Your task to perform on an android device: toggle wifi Image 0: 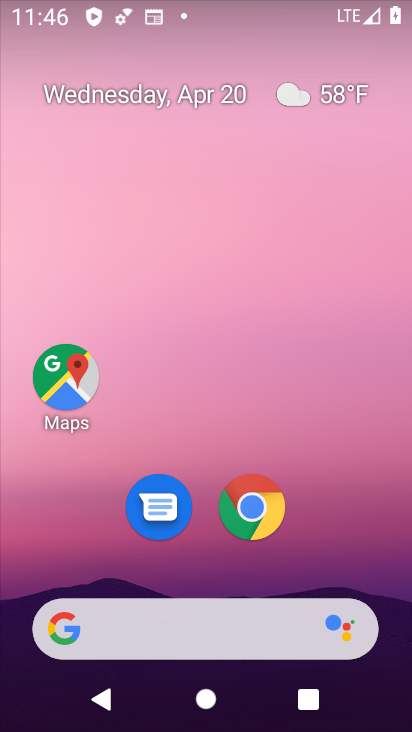
Step 0: drag from (351, 516) to (355, 172)
Your task to perform on an android device: toggle wifi Image 1: 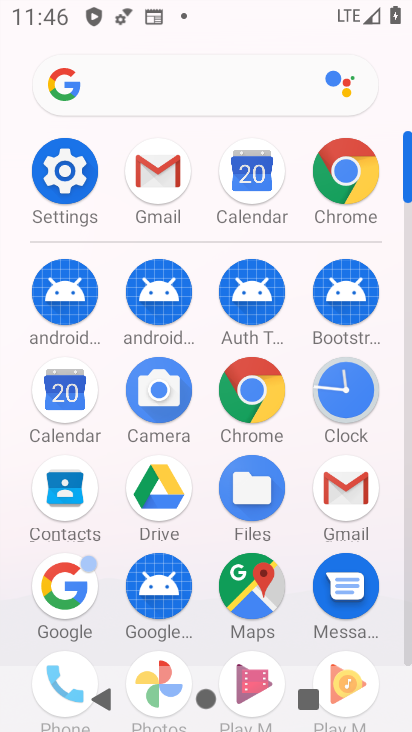
Step 1: click (63, 195)
Your task to perform on an android device: toggle wifi Image 2: 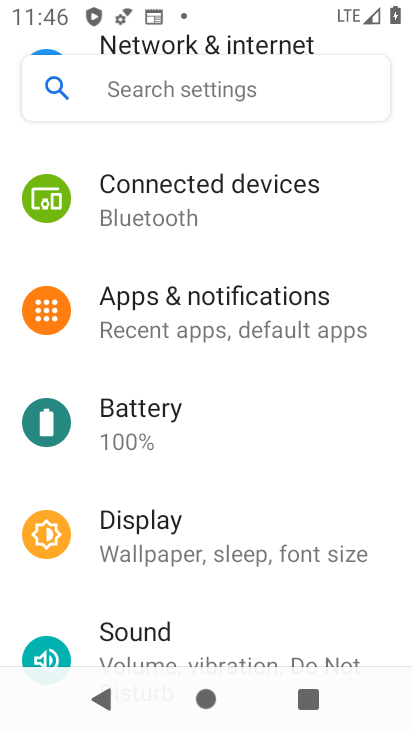
Step 2: drag from (336, 480) to (330, 342)
Your task to perform on an android device: toggle wifi Image 3: 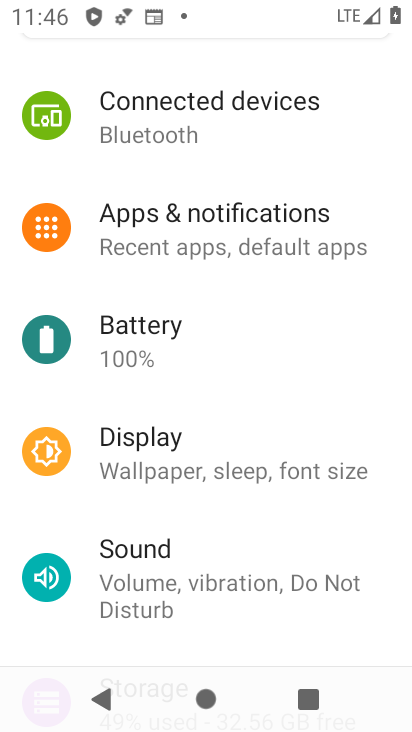
Step 3: drag from (360, 512) to (359, 382)
Your task to perform on an android device: toggle wifi Image 4: 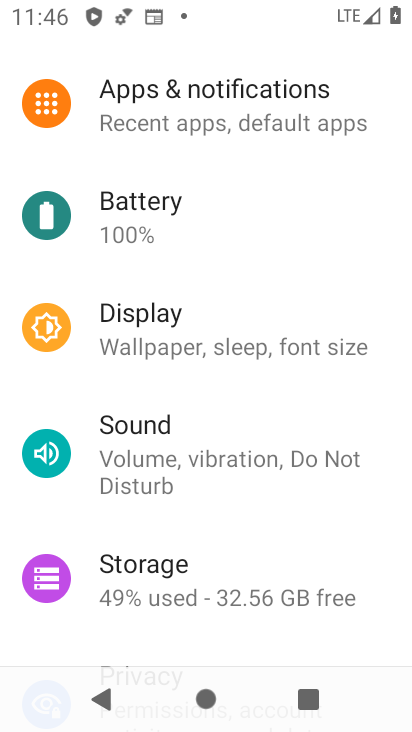
Step 4: drag from (379, 597) to (370, 428)
Your task to perform on an android device: toggle wifi Image 5: 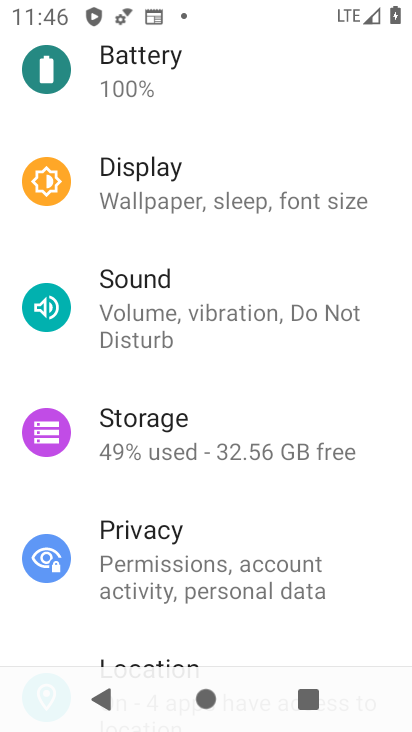
Step 5: drag from (369, 595) to (381, 357)
Your task to perform on an android device: toggle wifi Image 6: 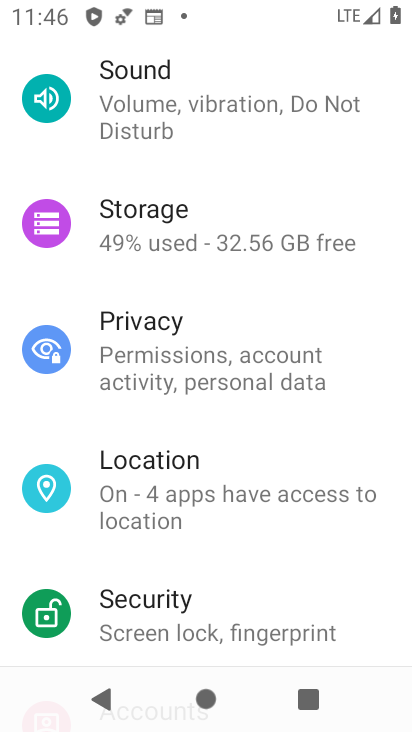
Step 6: drag from (388, 317) to (380, 568)
Your task to perform on an android device: toggle wifi Image 7: 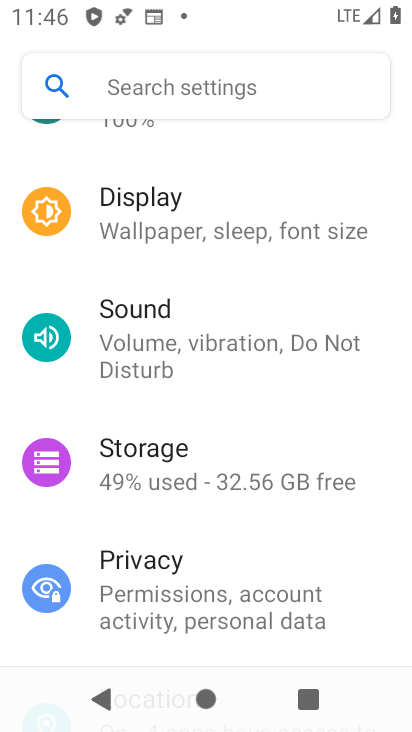
Step 7: drag from (387, 293) to (357, 466)
Your task to perform on an android device: toggle wifi Image 8: 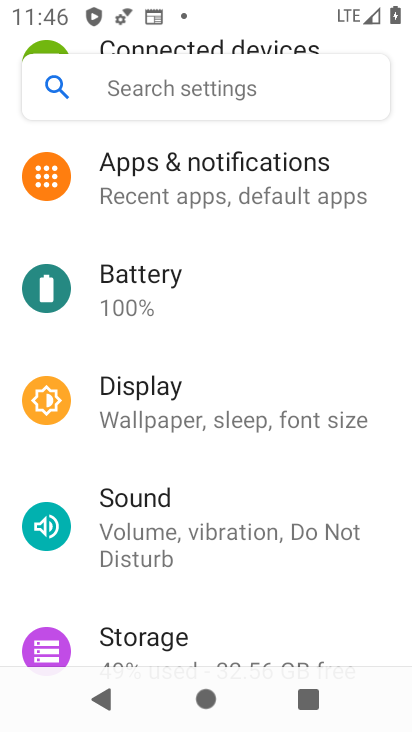
Step 8: drag from (359, 264) to (368, 486)
Your task to perform on an android device: toggle wifi Image 9: 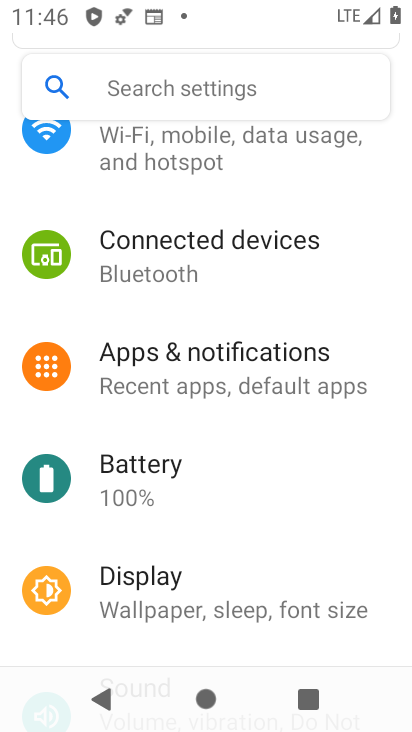
Step 9: drag from (367, 258) to (379, 460)
Your task to perform on an android device: toggle wifi Image 10: 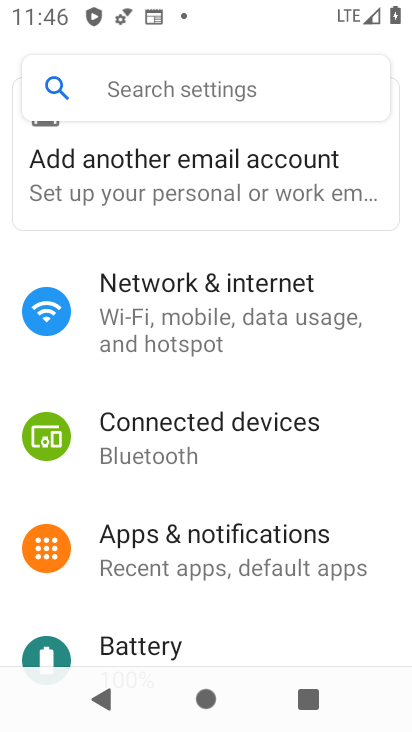
Step 10: drag from (369, 264) to (367, 429)
Your task to perform on an android device: toggle wifi Image 11: 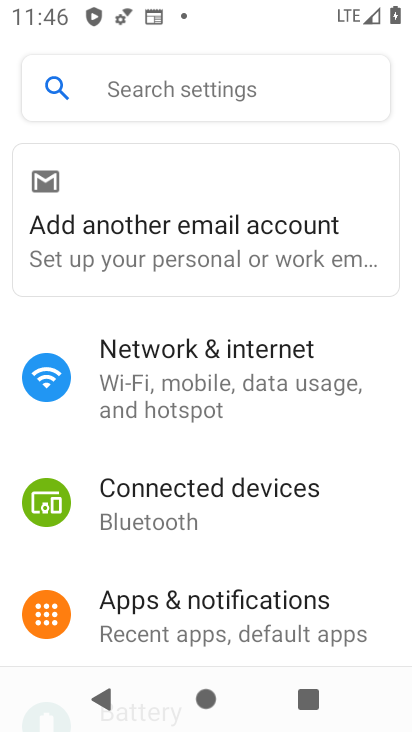
Step 11: click (247, 371)
Your task to perform on an android device: toggle wifi Image 12: 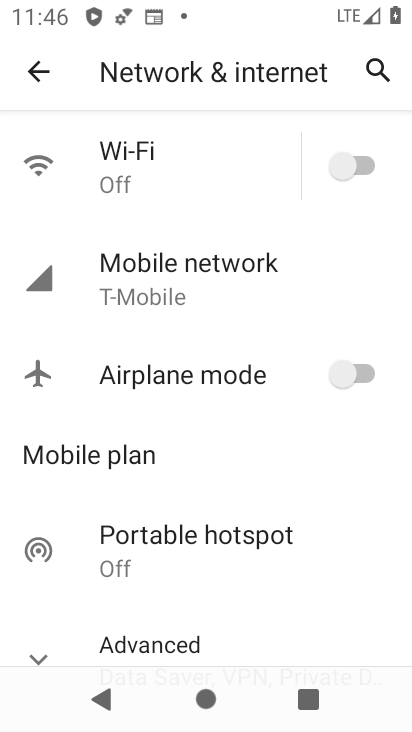
Step 12: click (346, 161)
Your task to perform on an android device: toggle wifi Image 13: 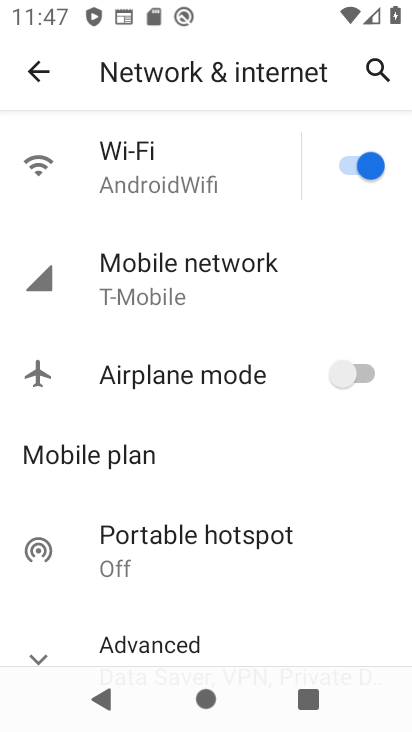
Step 13: task complete